Your task to perform on an android device: change the clock display to show seconds Image 0: 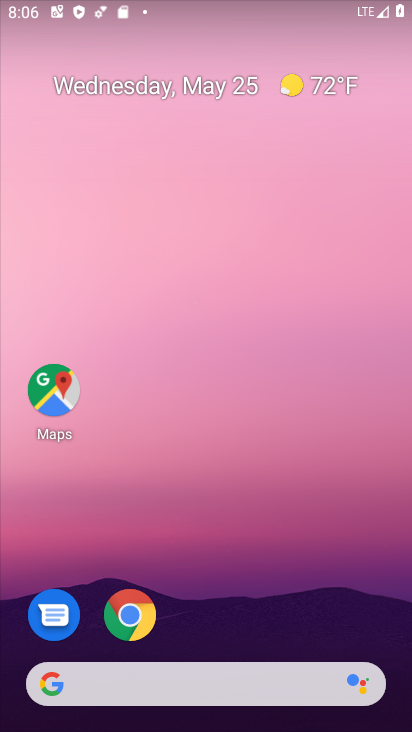
Step 0: drag from (272, 604) to (305, 25)
Your task to perform on an android device: change the clock display to show seconds Image 1: 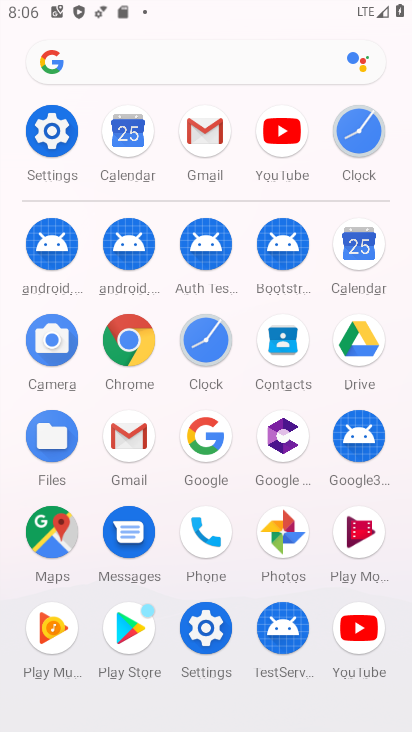
Step 1: click (364, 127)
Your task to perform on an android device: change the clock display to show seconds Image 2: 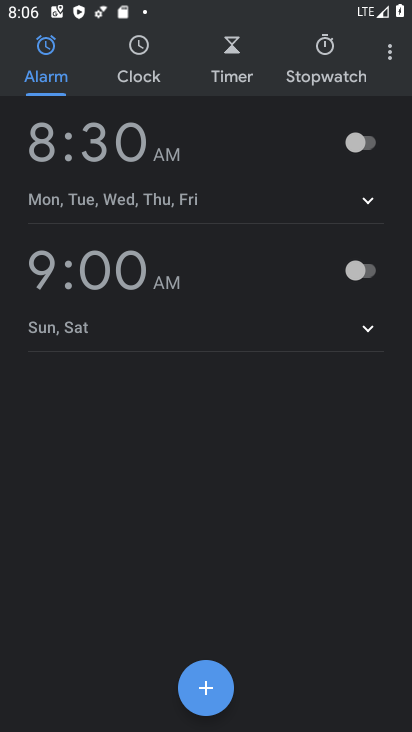
Step 2: click (385, 62)
Your task to perform on an android device: change the clock display to show seconds Image 3: 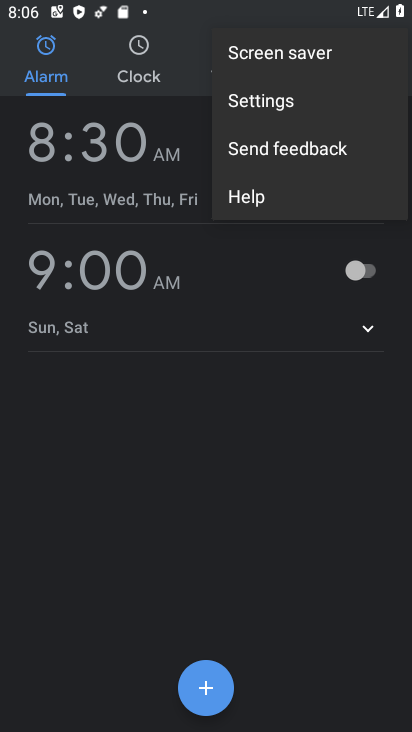
Step 3: click (328, 106)
Your task to perform on an android device: change the clock display to show seconds Image 4: 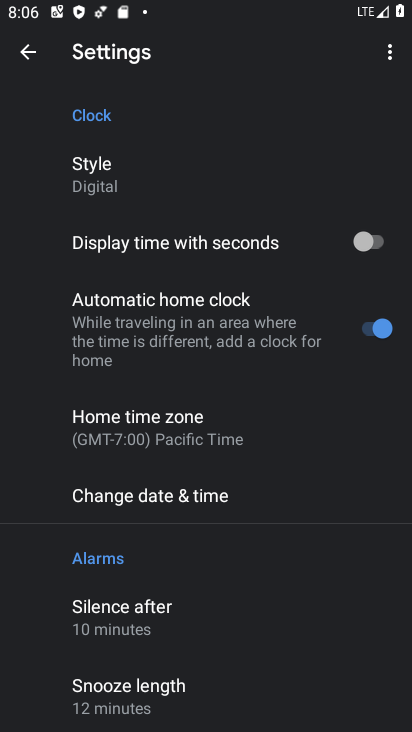
Step 4: click (371, 239)
Your task to perform on an android device: change the clock display to show seconds Image 5: 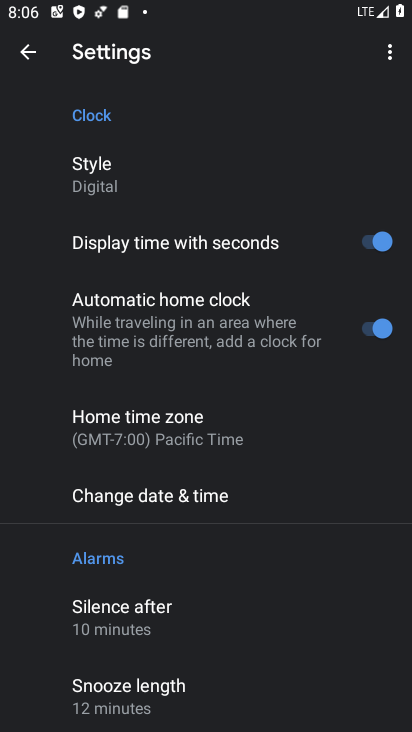
Step 5: click (31, 50)
Your task to perform on an android device: change the clock display to show seconds Image 6: 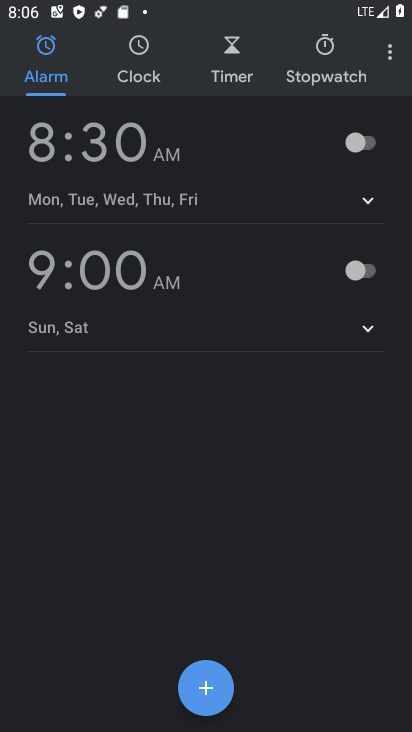
Step 6: click (145, 43)
Your task to perform on an android device: change the clock display to show seconds Image 7: 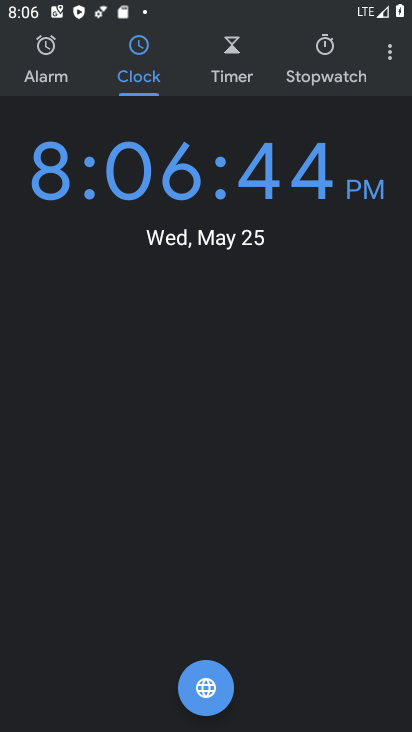
Step 7: task complete